Your task to perform on an android device: Open settings Image 0: 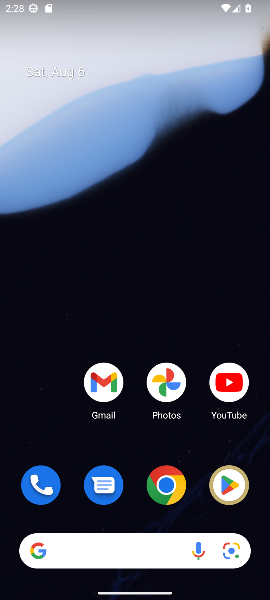
Step 0: drag from (136, 454) to (126, 0)
Your task to perform on an android device: Open settings Image 1: 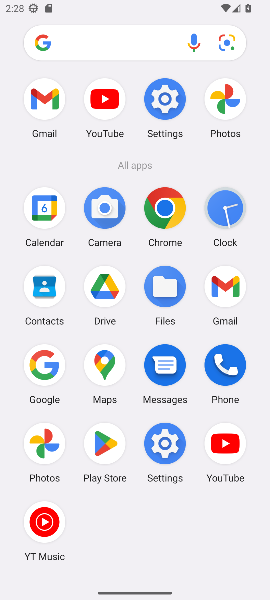
Step 1: click (162, 92)
Your task to perform on an android device: Open settings Image 2: 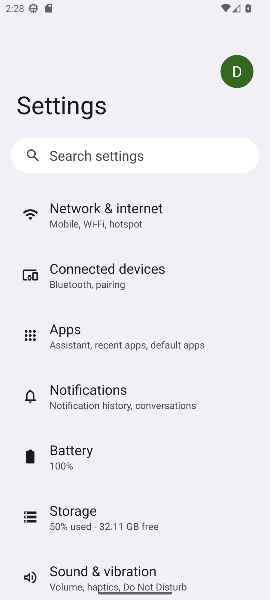
Step 2: task complete